Your task to perform on an android device: Set the phone to "Do not disturb". Image 0: 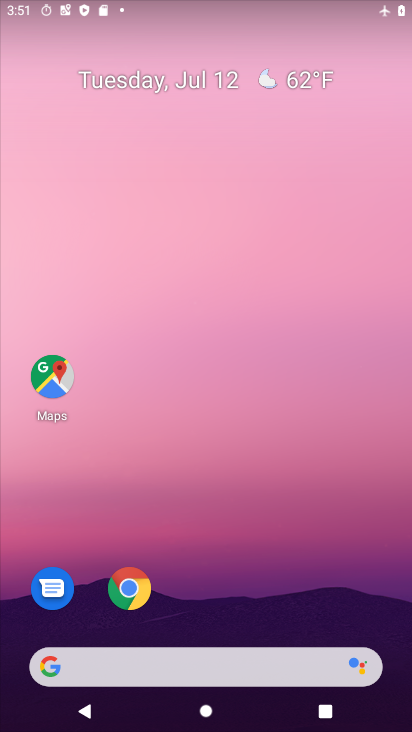
Step 0: drag from (228, 598) to (27, 3)
Your task to perform on an android device: Set the phone to "Do not disturb". Image 1: 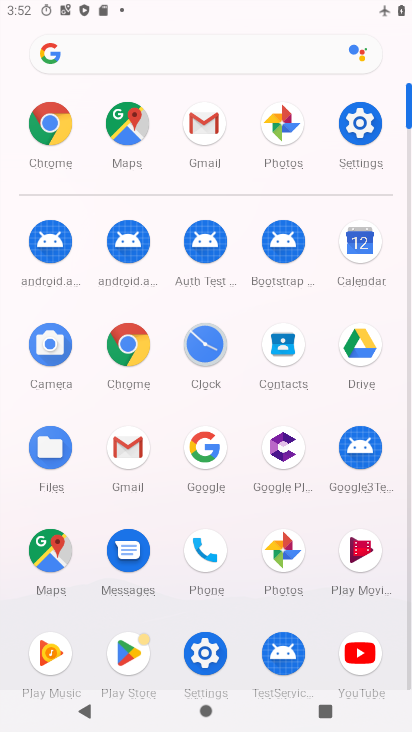
Step 1: click (215, 667)
Your task to perform on an android device: Set the phone to "Do not disturb". Image 2: 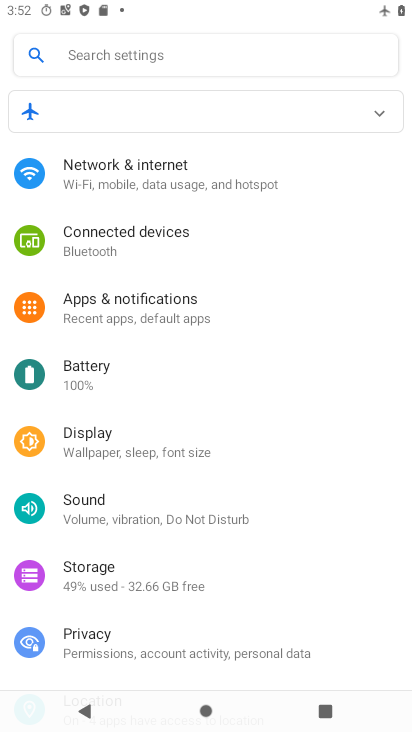
Step 2: click (132, 523)
Your task to perform on an android device: Set the phone to "Do not disturb". Image 3: 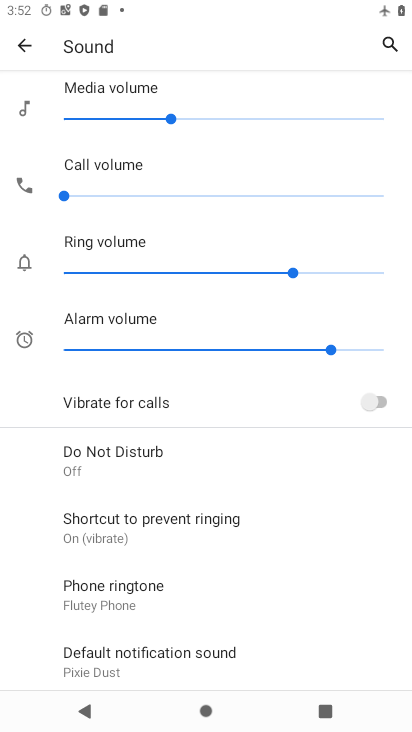
Step 3: click (137, 460)
Your task to perform on an android device: Set the phone to "Do not disturb". Image 4: 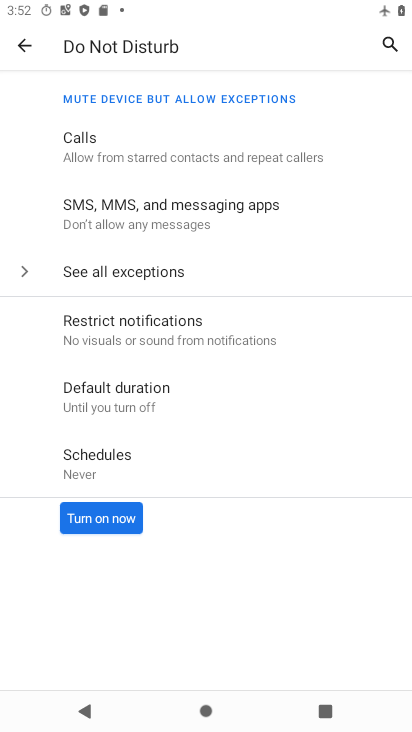
Step 4: click (91, 527)
Your task to perform on an android device: Set the phone to "Do not disturb". Image 5: 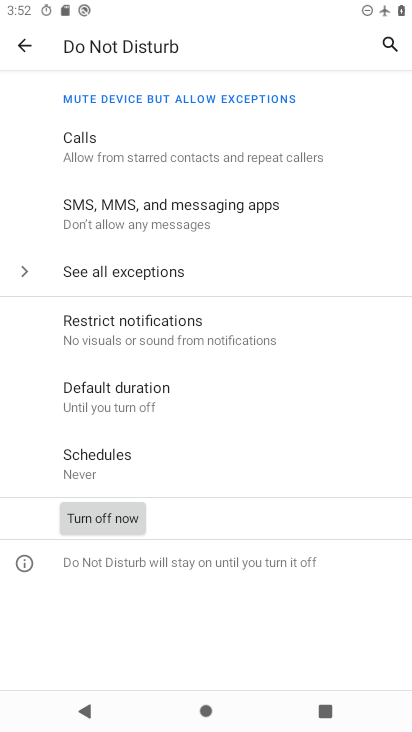
Step 5: task complete